Your task to perform on an android device: turn off improve location accuracy Image 0: 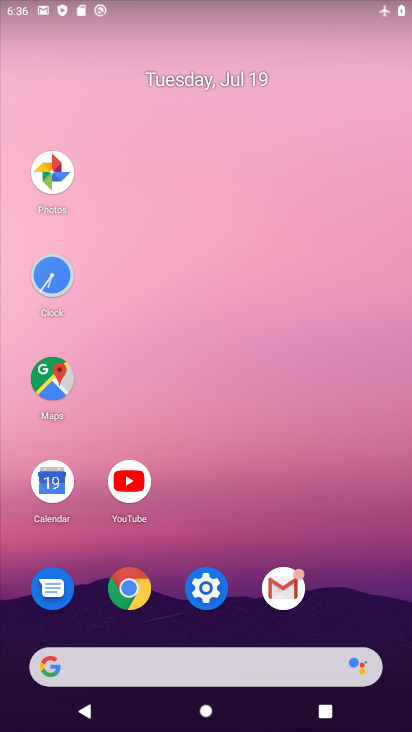
Step 0: click (204, 590)
Your task to perform on an android device: turn off improve location accuracy Image 1: 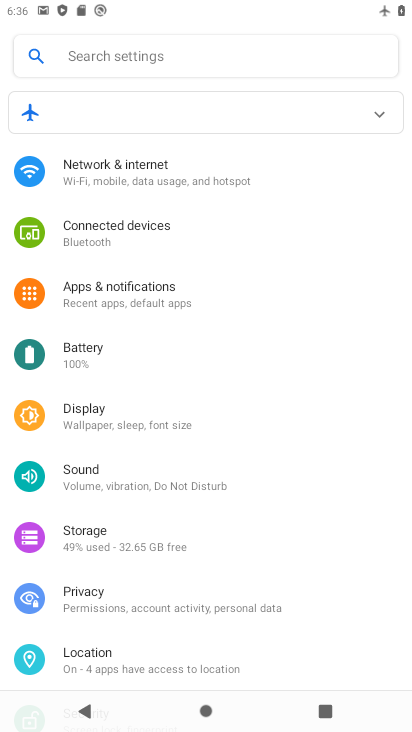
Step 1: click (84, 658)
Your task to perform on an android device: turn off improve location accuracy Image 2: 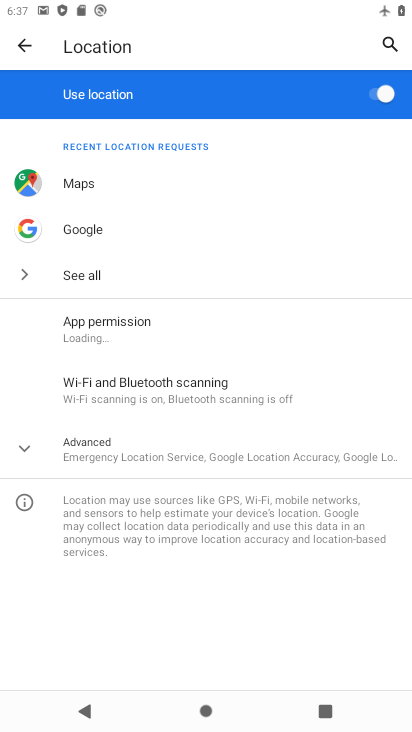
Step 2: click (22, 449)
Your task to perform on an android device: turn off improve location accuracy Image 3: 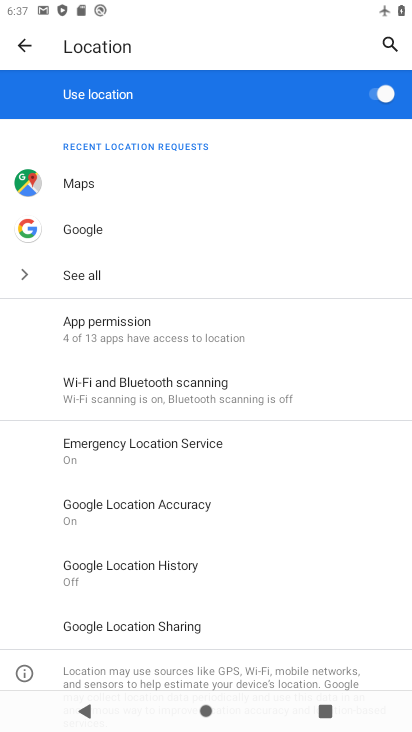
Step 3: click (152, 506)
Your task to perform on an android device: turn off improve location accuracy Image 4: 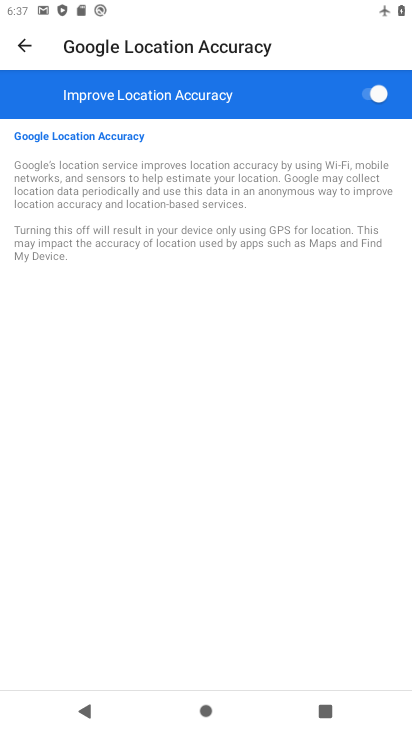
Step 4: click (385, 91)
Your task to perform on an android device: turn off improve location accuracy Image 5: 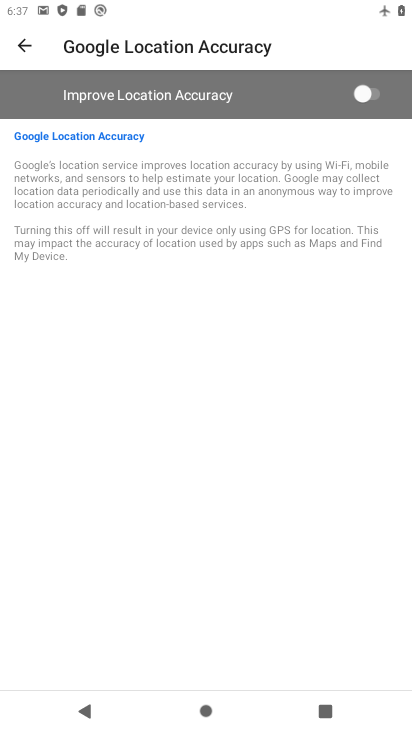
Step 5: task complete